Your task to perform on an android device: stop showing notifications on the lock screen Image 0: 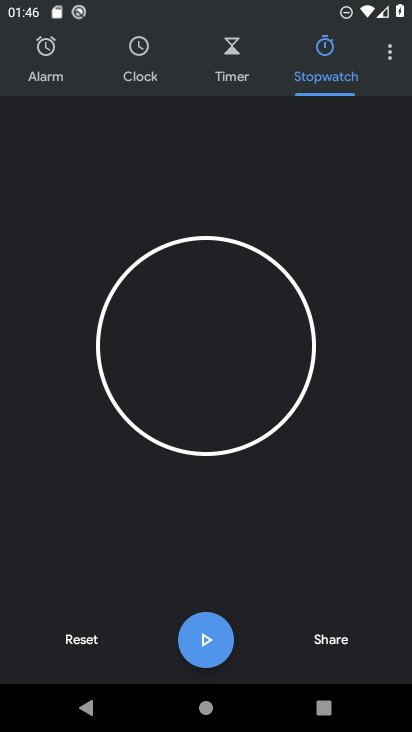
Step 0: press home button
Your task to perform on an android device: stop showing notifications on the lock screen Image 1: 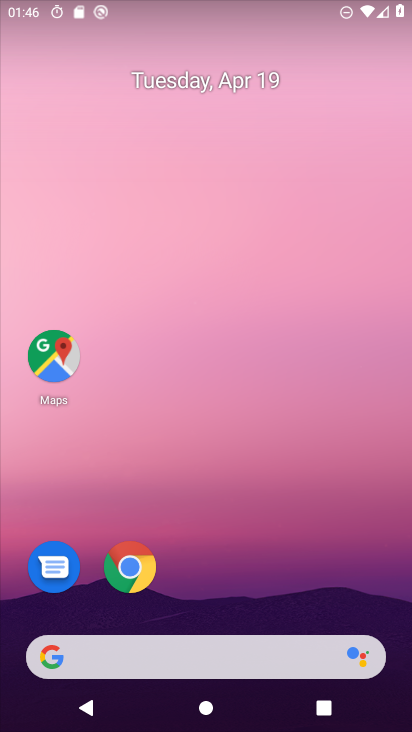
Step 1: drag from (269, 612) to (251, 224)
Your task to perform on an android device: stop showing notifications on the lock screen Image 2: 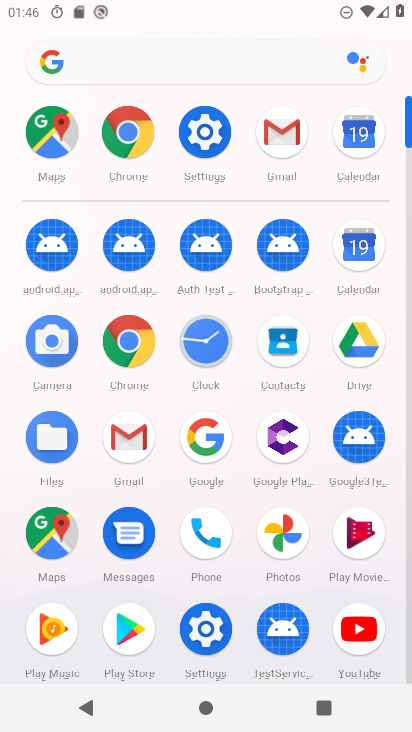
Step 2: click (216, 620)
Your task to perform on an android device: stop showing notifications on the lock screen Image 3: 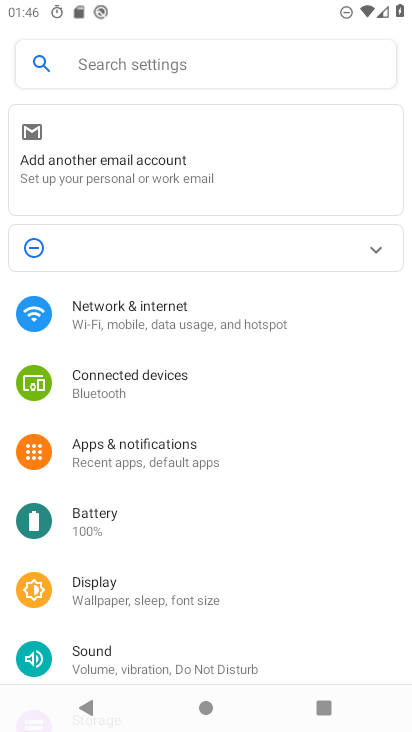
Step 3: drag from (263, 615) to (270, 168)
Your task to perform on an android device: stop showing notifications on the lock screen Image 4: 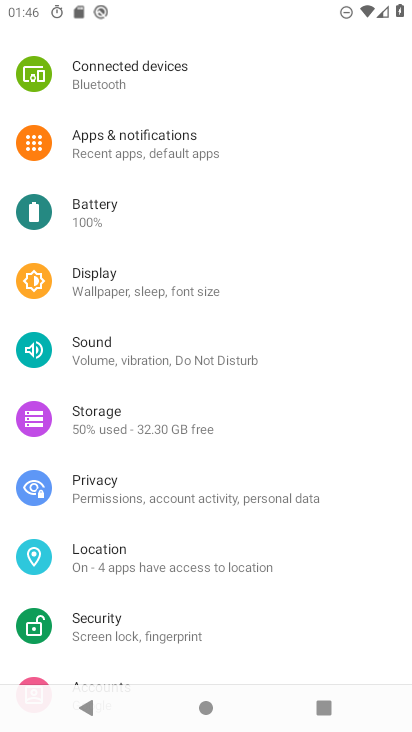
Step 4: drag from (201, 603) to (227, 266)
Your task to perform on an android device: stop showing notifications on the lock screen Image 5: 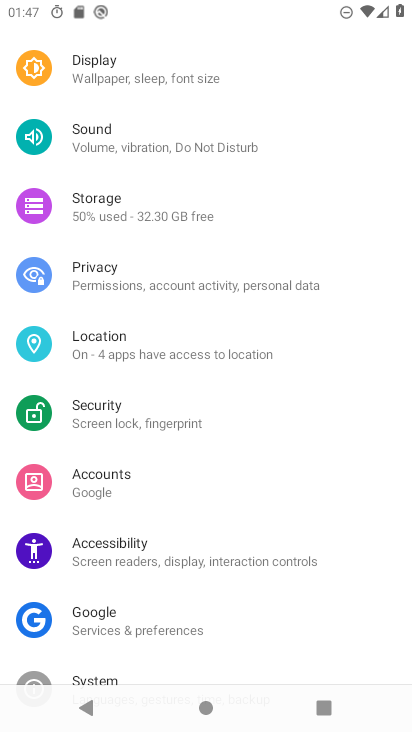
Step 5: drag from (217, 238) to (250, 725)
Your task to perform on an android device: stop showing notifications on the lock screen Image 6: 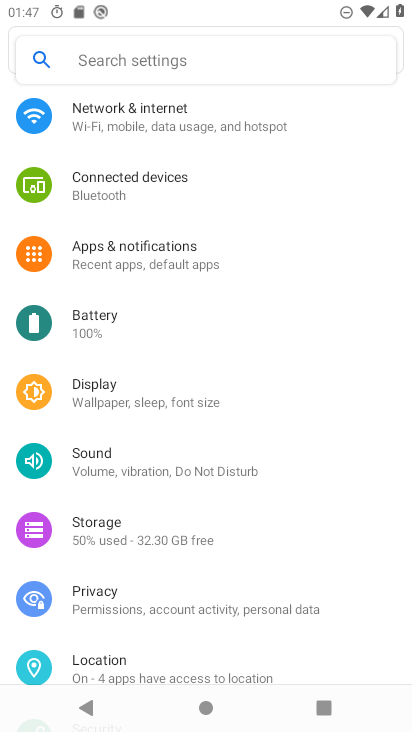
Step 6: click (151, 269)
Your task to perform on an android device: stop showing notifications on the lock screen Image 7: 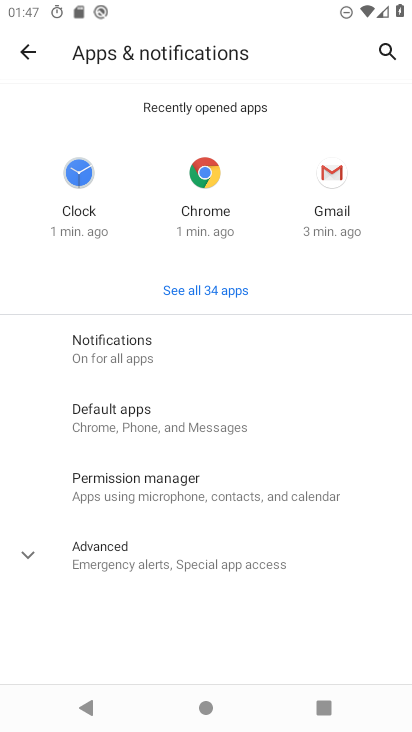
Step 7: click (144, 354)
Your task to perform on an android device: stop showing notifications on the lock screen Image 8: 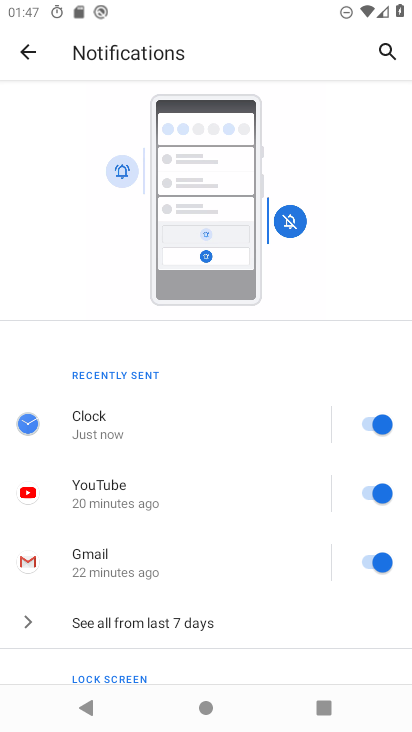
Step 8: drag from (205, 596) to (259, 192)
Your task to perform on an android device: stop showing notifications on the lock screen Image 9: 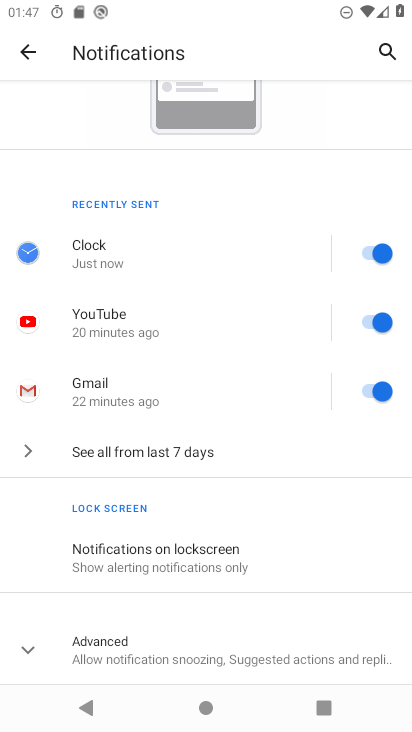
Step 9: click (191, 546)
Your task to perform on an android device: stop showing notifications on the lock screen Image 10: 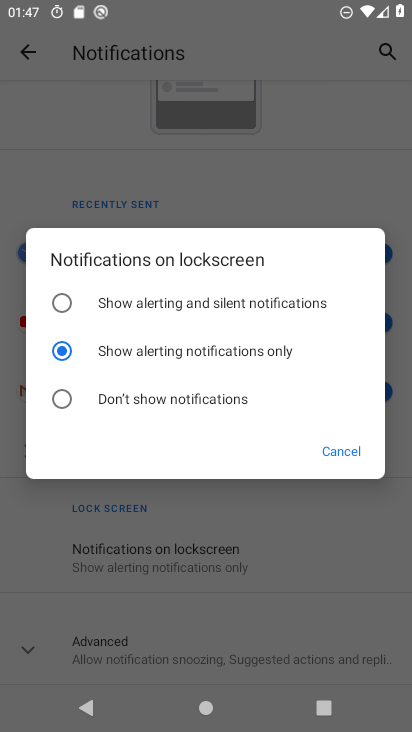
Step 10: click (191, 402)
Your task to perform on an android device: stop showing notifications on the lock screen Image 11: 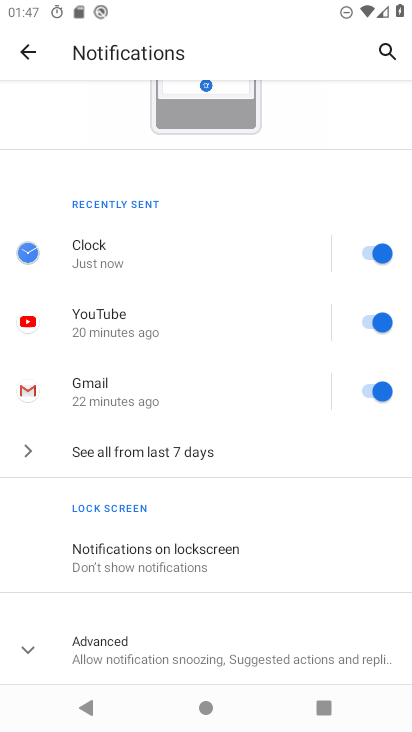
Step 11: task complete